Your task to perform on an android device: turn on javascript in the chrome app Image 0: 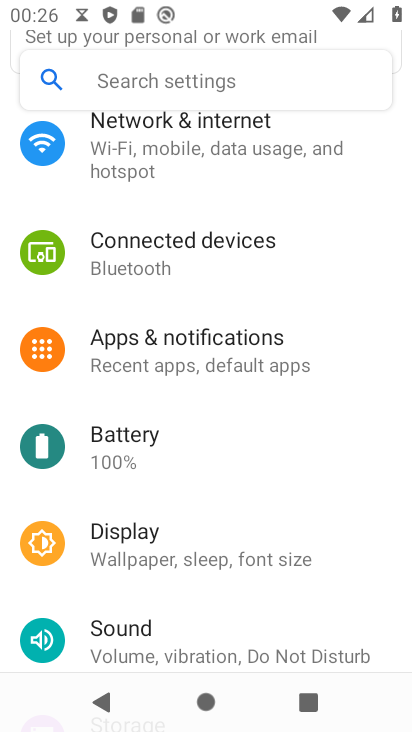
Step 0: press home button
Your task to perform on an android device: turn on javascript in the chrome app Image 1: 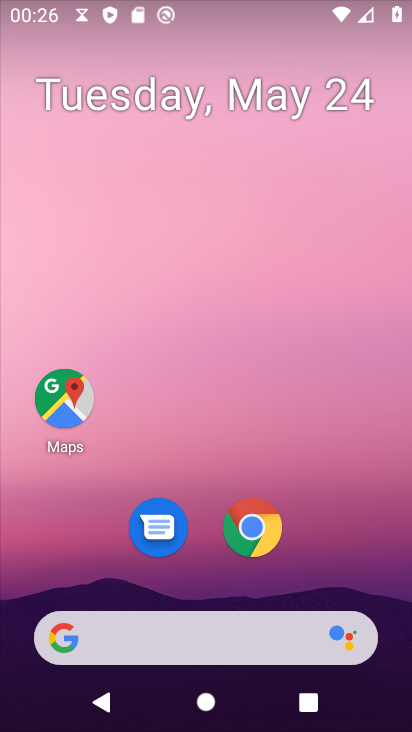
Step 1: click (263, 532)
Your task to perform on an android device: turn on javascript in the chrome app Image 2: 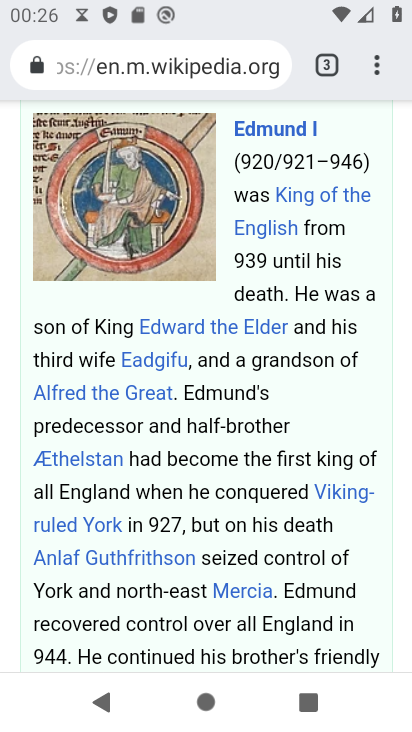
Step 2: drag from (377, 64) to (234, 580)
Your task to perform on an android device: turn on javascript in the chrome app Image 3: 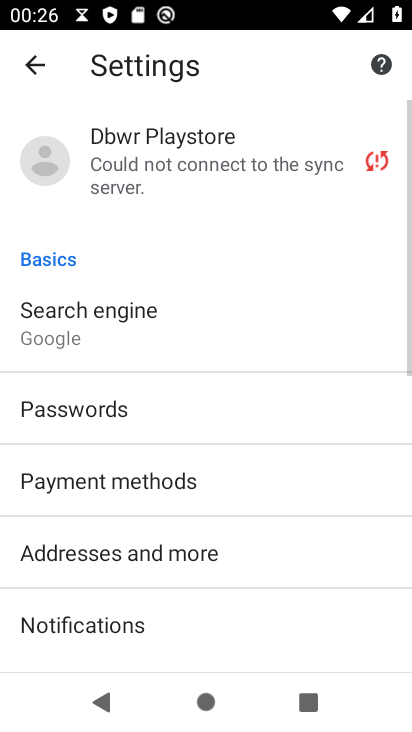
Step 3: drag from (189, 636) to (239, 158)
Your task to perform on an android device: turn on javascript in the chrome app Image 4: 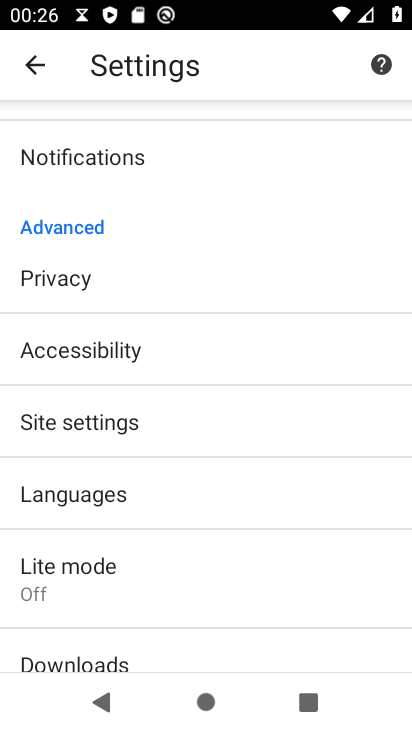
Step 4: click (122, 428)
Your task to perform on an android device: turn on javascript in the chrome app Image 5: 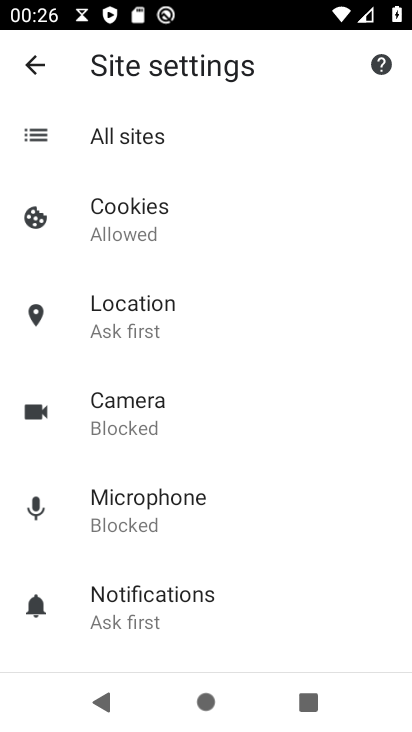
Step 5: drag from (200, 633) to (249, 267)
Your task to perform on an android device: turn on javascript in the chrome app Image 6: 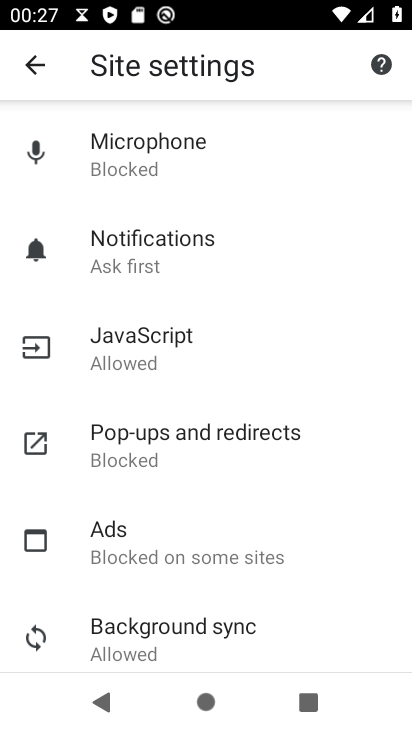
Step 6: click (157, 350)
Your task to perform on an android device: turn on javascript in the chrome app Image 7: 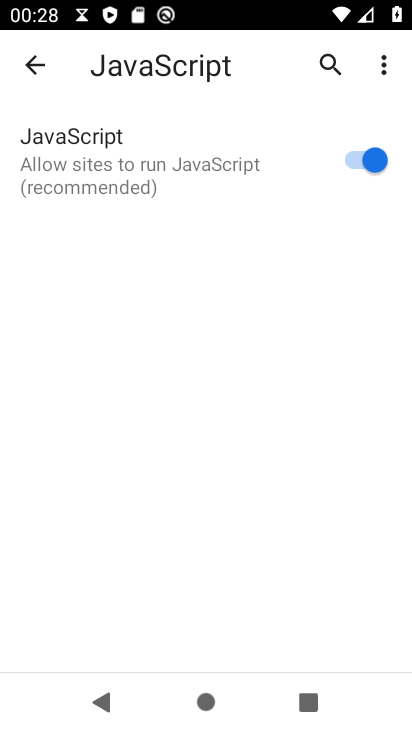
Step 7: task complete